Your task to perform on an android device: turn off smart reply in the gmail app Image 0: 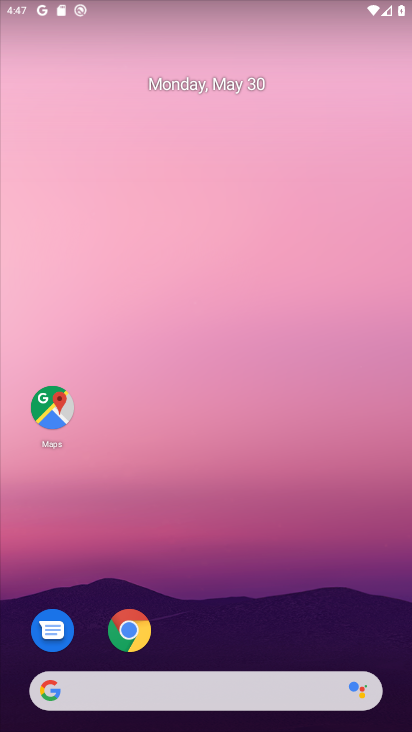
Step 0: press home button
Your task to perform on an android device: turn off smart reply in the gmail app Image 1: 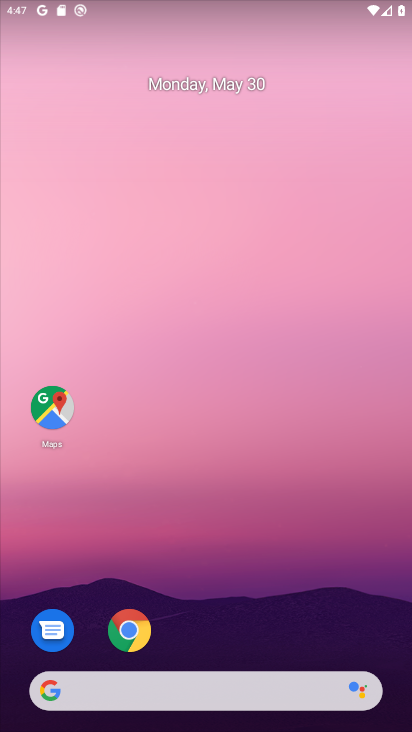
Step 1: drag from (249, 644) to (268, 149)
Your task to perform on an android device: turn off smart reply in the gmail app Image 2: 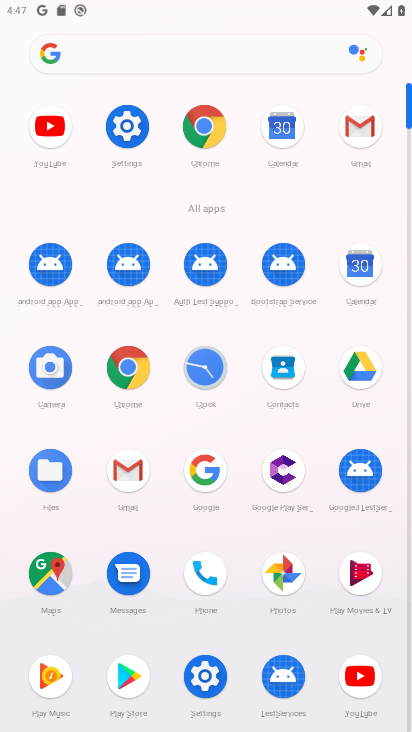
Step 2: click (359, 132)
Your task to perform on an android device: turn off smart reply in the gmail app Image 3: 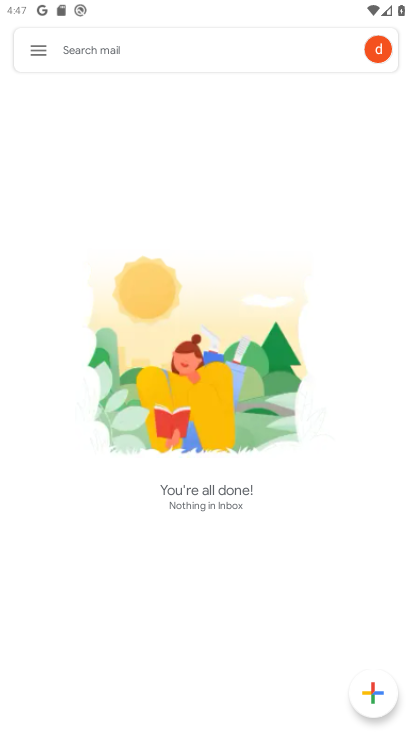
Step 3: click (39, 49)
Your task to perform on an android device: turn off smart reply in the gmail app Image 4: 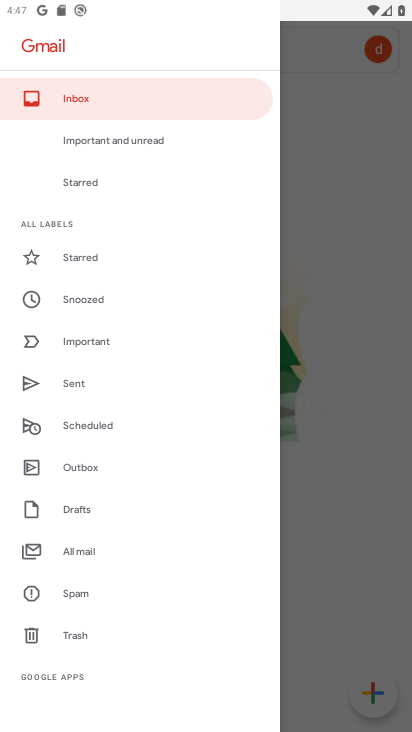
Step 4: drag from (163, 646) to (195, 118)
Your task to perform on an android device: turn off smart reply in the gmail app Image 5: 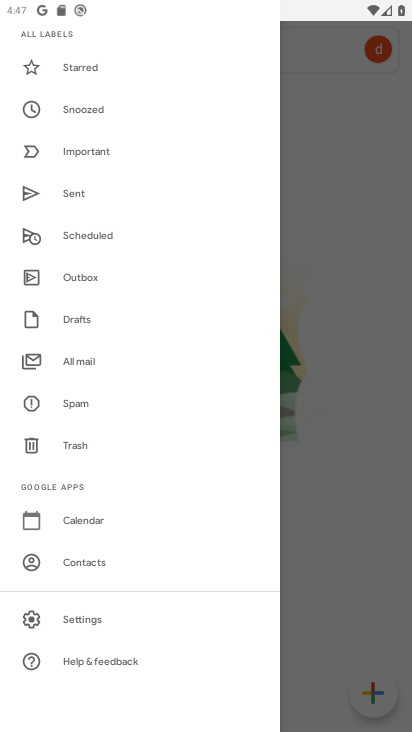
Step 5: click (80, 620)
Your task to perform on an android device: turn off smart reply in the gmail app Image 6: 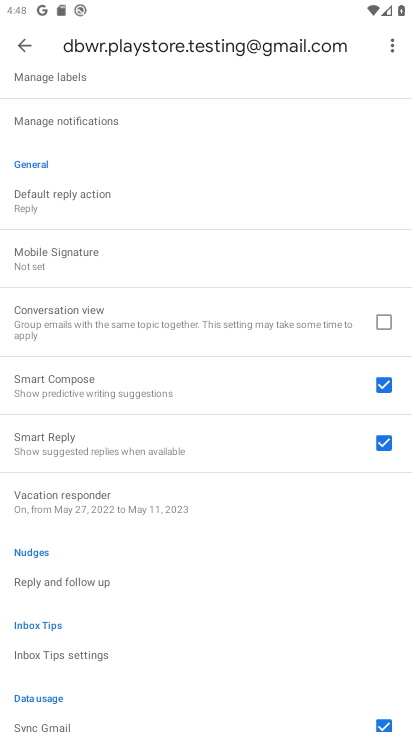
Step 6: drag from (216, 632) to (264, 199)
Your task to perform on an android device: turn off smart reply in the gmail app Image 7: 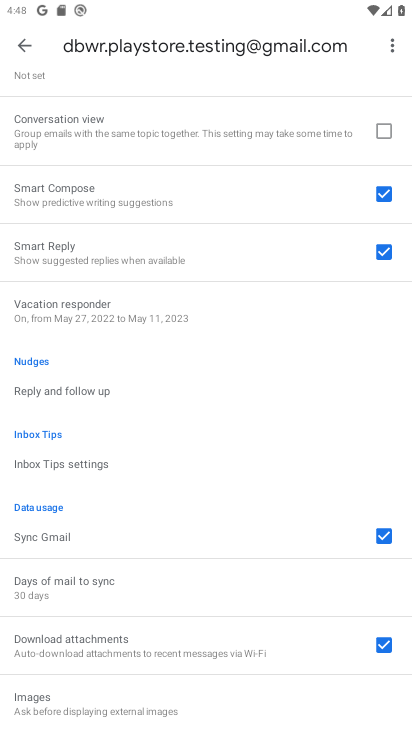
Step 7: click (382, 249)
Your task to perform on an android device: turn off smart reply in the gmail app Image 8: 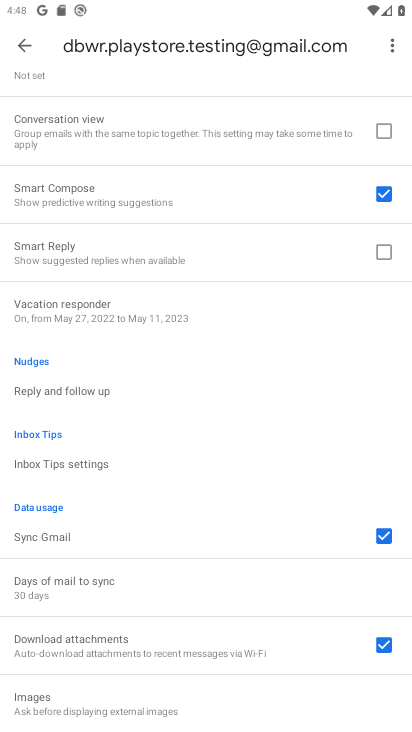
Step 8: task complete